Your task to perform on an android device: Search for Italian restaurants on Maps Image 0: 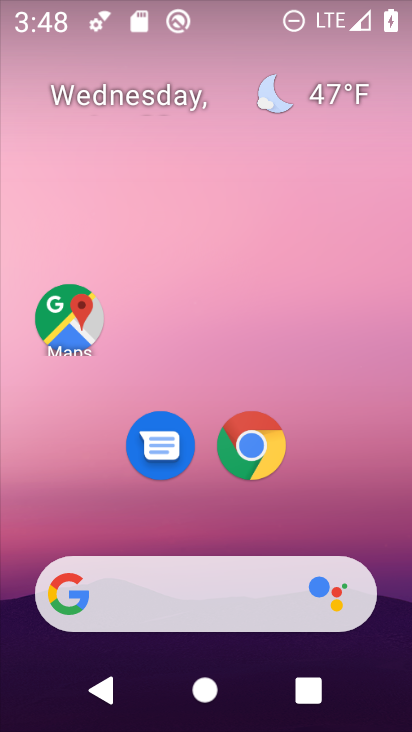
Step 0: click (69, 318)
Your task to perform on an android device: Search for Italian restaurants on Maps Image 1: 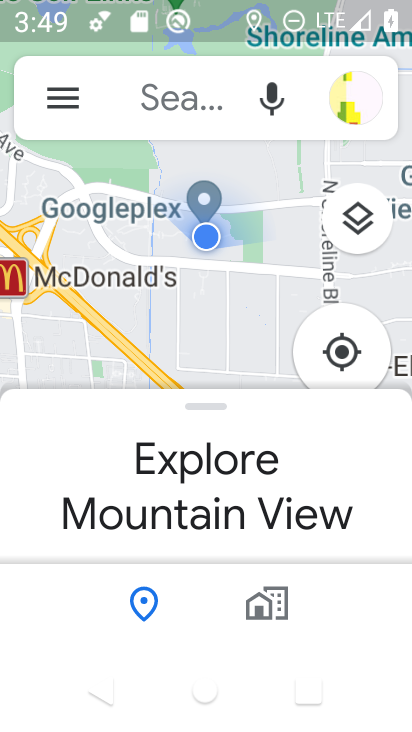
Step 1: type "Italian restaurans"
Your task to perform on an android device: Search for Italian restaurants on Maps Image 2: 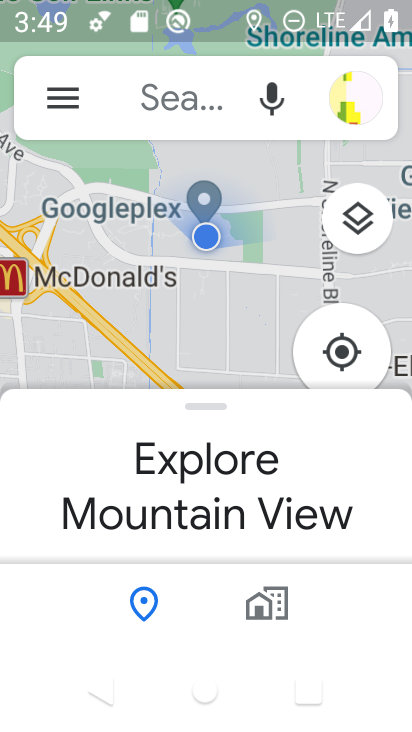
Step 2: click (201, 107)
Your task to perform on an android device: Search for Italian restaurants on Maps Image 3: 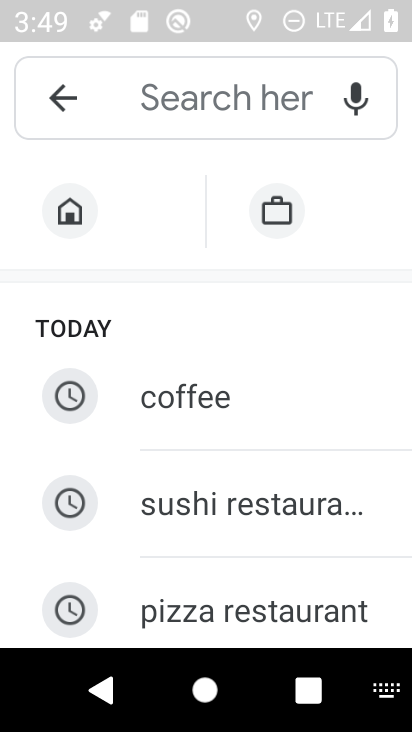
Step 3: type "Italian restaurants"
Your task to perform on an android device: Search for Italian restaurants on Maps Image 4: 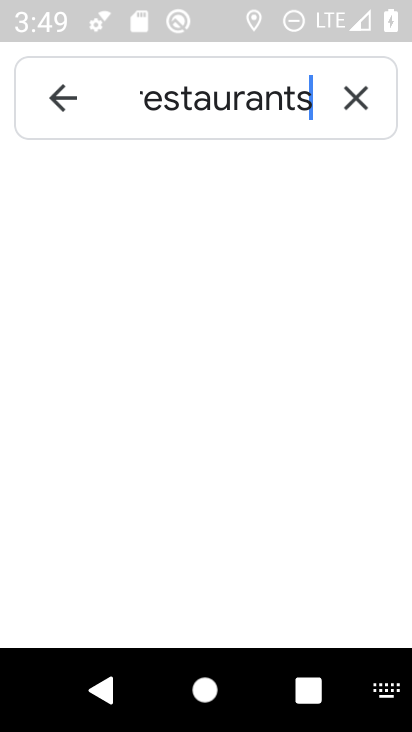
Step 4: type ""
Your task to perform on an android device: Search for Italian restaurants on Maps Image 5: 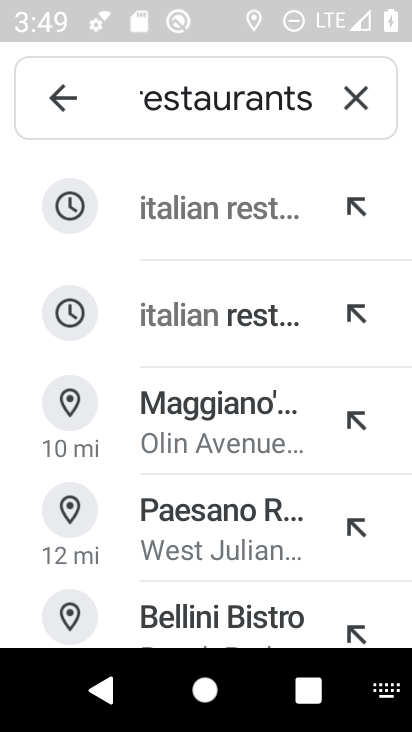
Step 5: click (250, 210)
Your task to perform on an android device: Search for Italian restaurants on Maps Image 6: 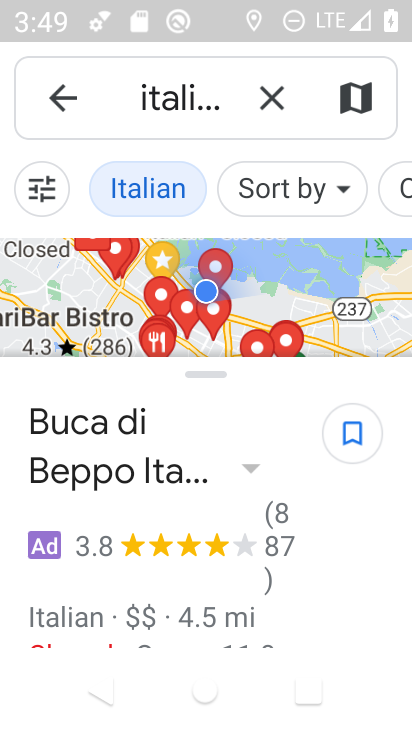
Step 6: task complete